Your task to perform on an android device: find photos in the google photos app Image 0: 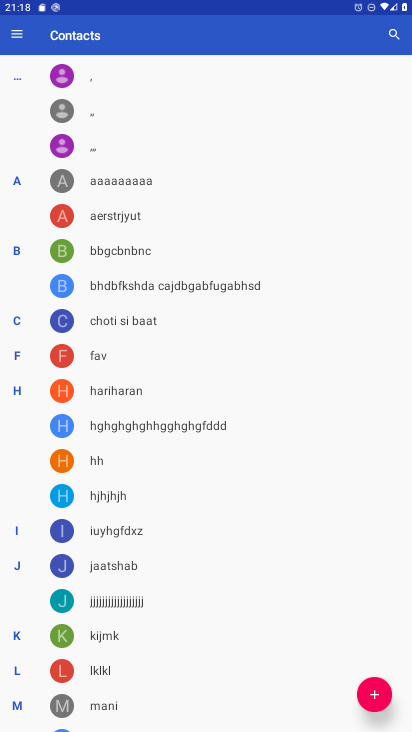
Step 0: press home button
Your task to perform on an android device: find photos in the google photos app Image 1: 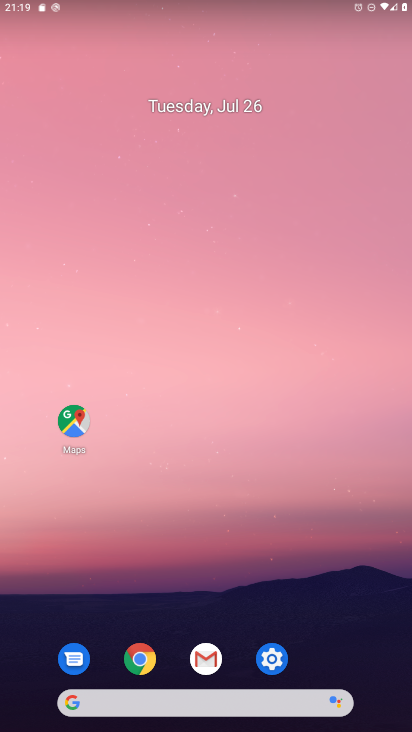
Step 1: drag from (231, 722) to (182, 263)
Your task to perform on an android device: find photos in the google photos app Image 2: 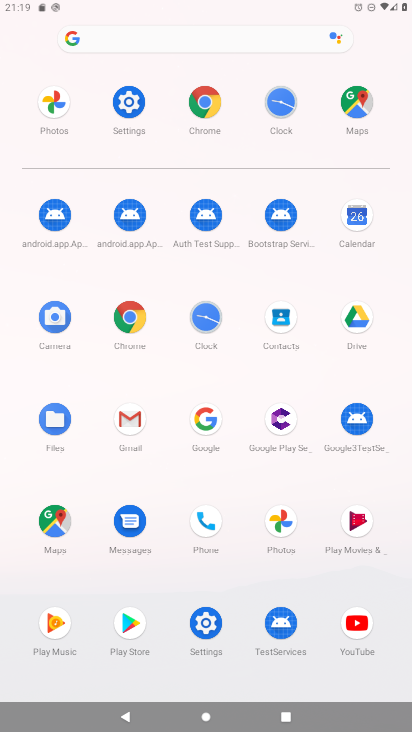
Step 2: click (280, 512)
Your task to perform on an android device: find photos in the google photos app Image 3: 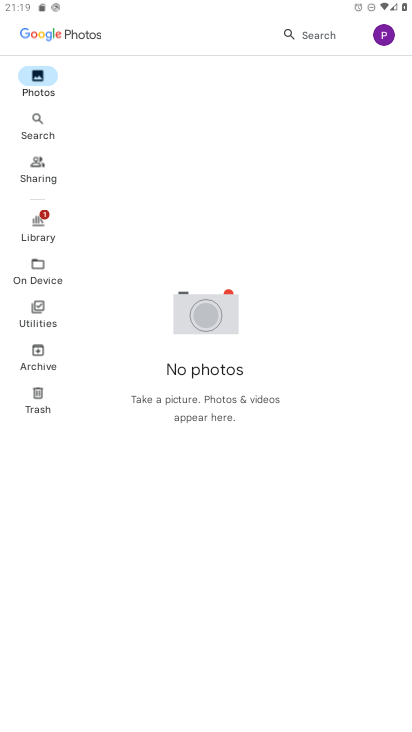
Step 3: task complete